Your task to perform on an android device: Open calendar and show me the fourth week of next month Image 0: 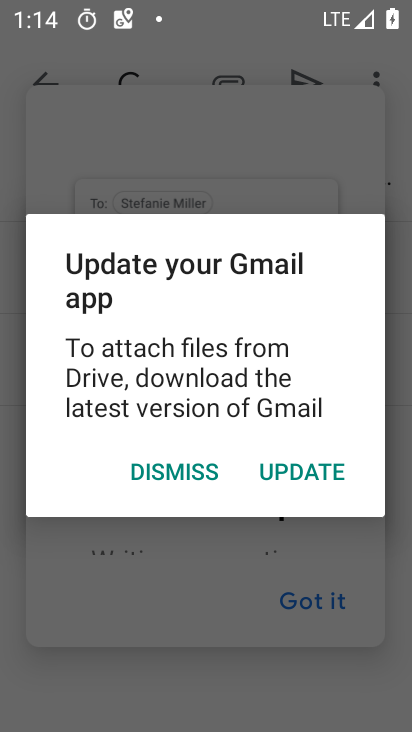
Step 0: press home button
Your task to perform on an android device: Open calendar and show me the fourth week of next month Image 1: 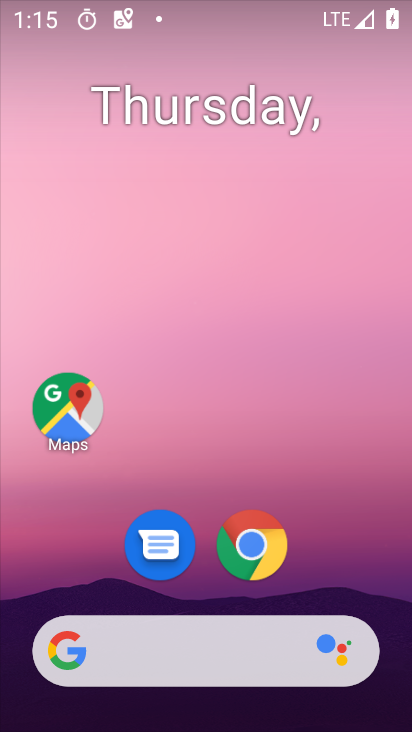
Step 1: drag from (232, 602) to (230, 78)
Your task to perform on an android device: Open calendar and show me the fourth week of next month Image 2: 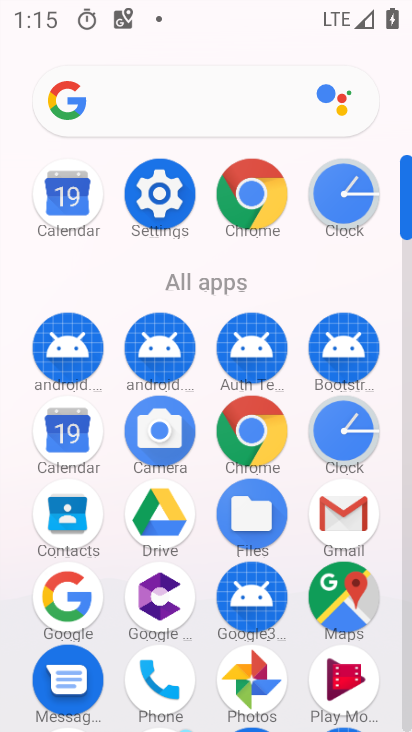
Step 2: click (72, 434)
Your task to perform on an android device: Open calendar and show me the fourth week of next month Image 3: 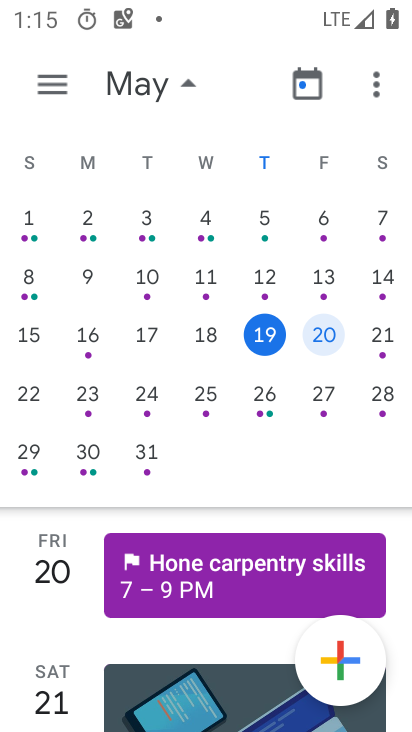
Step 3: drag from (375, 309) to (0, 329)
Your task to perform on an android device: Open calendar and show me the fourth week of next month Image 4: 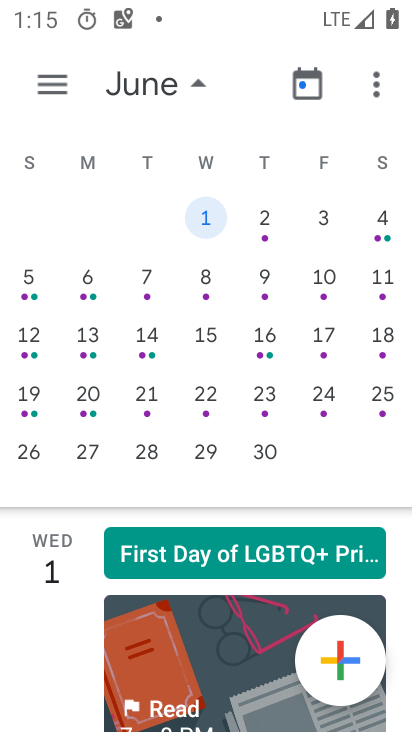
Step 4: click (266, 394)
Your task to perform on an android device: Open calendar and show me the fourth week of next month Image 5: 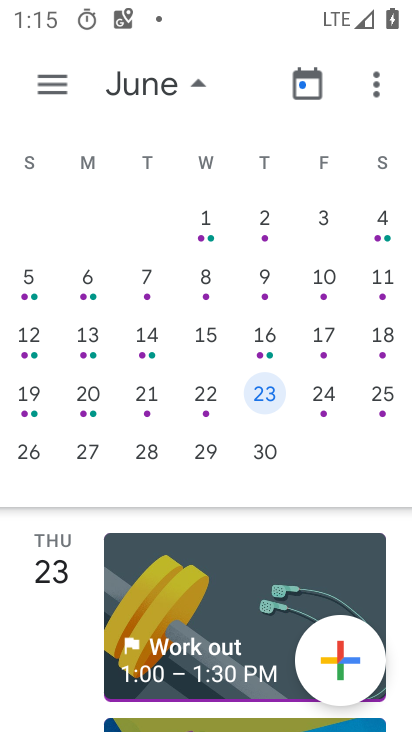
Step 5: task complete